Your task to perform on an android device: turn off sleep mode Image 0: 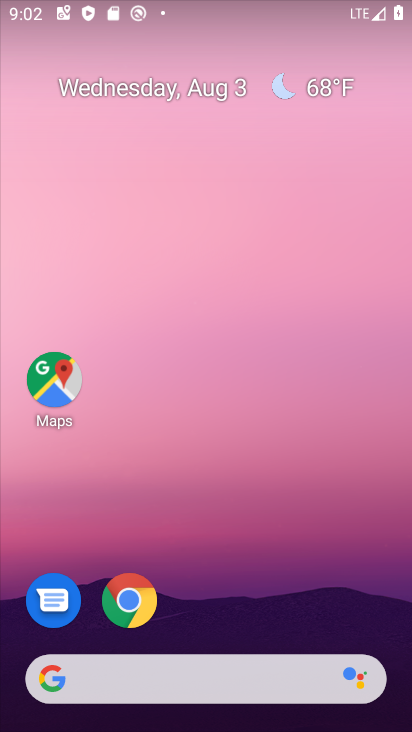
Step 0: drag from (197, 568) to (201, 3)
Your task to perform on an android device: turn off sleep mode Image 1: 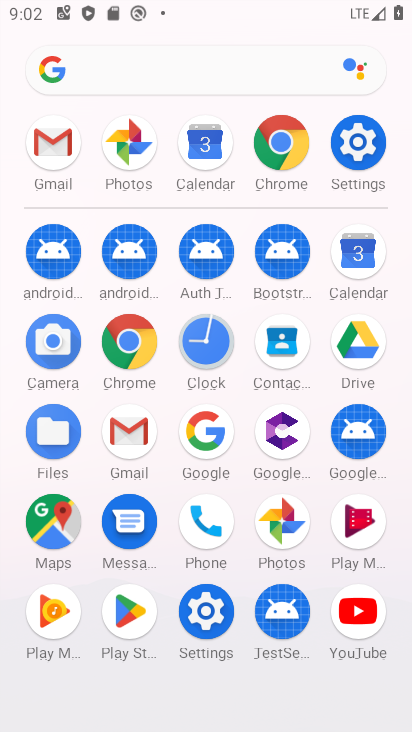
Step 1: click (364, 147)
Your task to perform on an android device: turn off sleep mode Image 2: 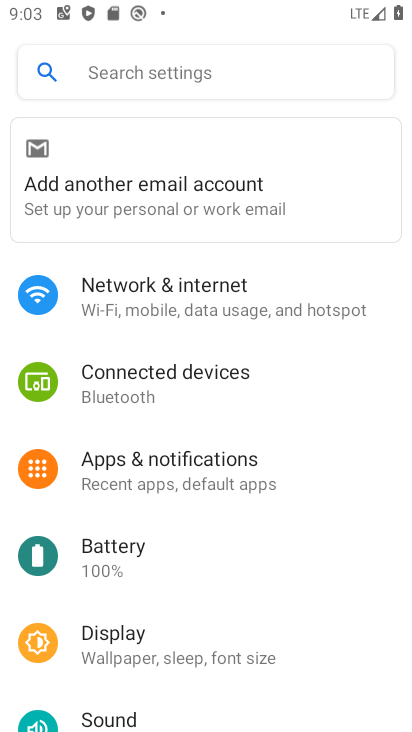
Step 2: click (212, 67)
Your task to perform on an android device: turn off sleep mode Image 3: 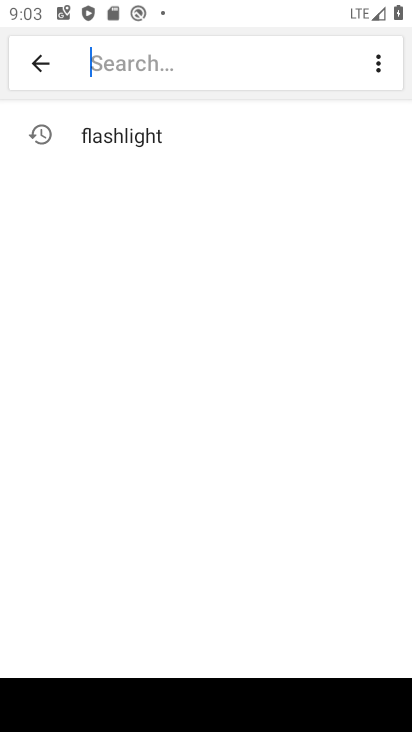
Step 3: type "sleep mode"
Your task to perform on an android device: turn off sleep mode Image 4: 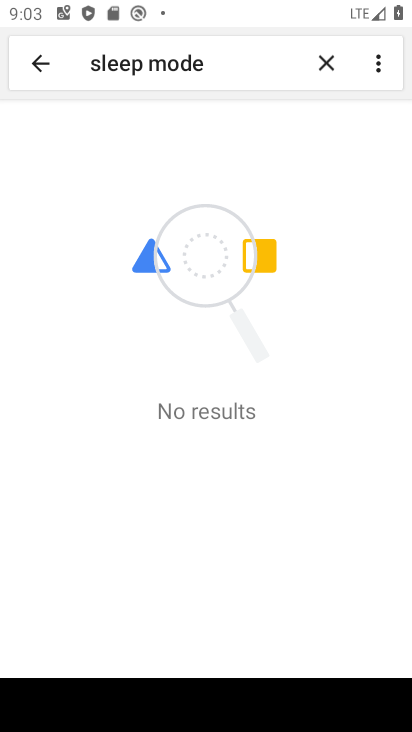
Step 4: task complete